Your task to perform on an android device: Clear the cart on ebay. Add "logitech g pro" to the cart on ebay, then select checkout. Image 0: 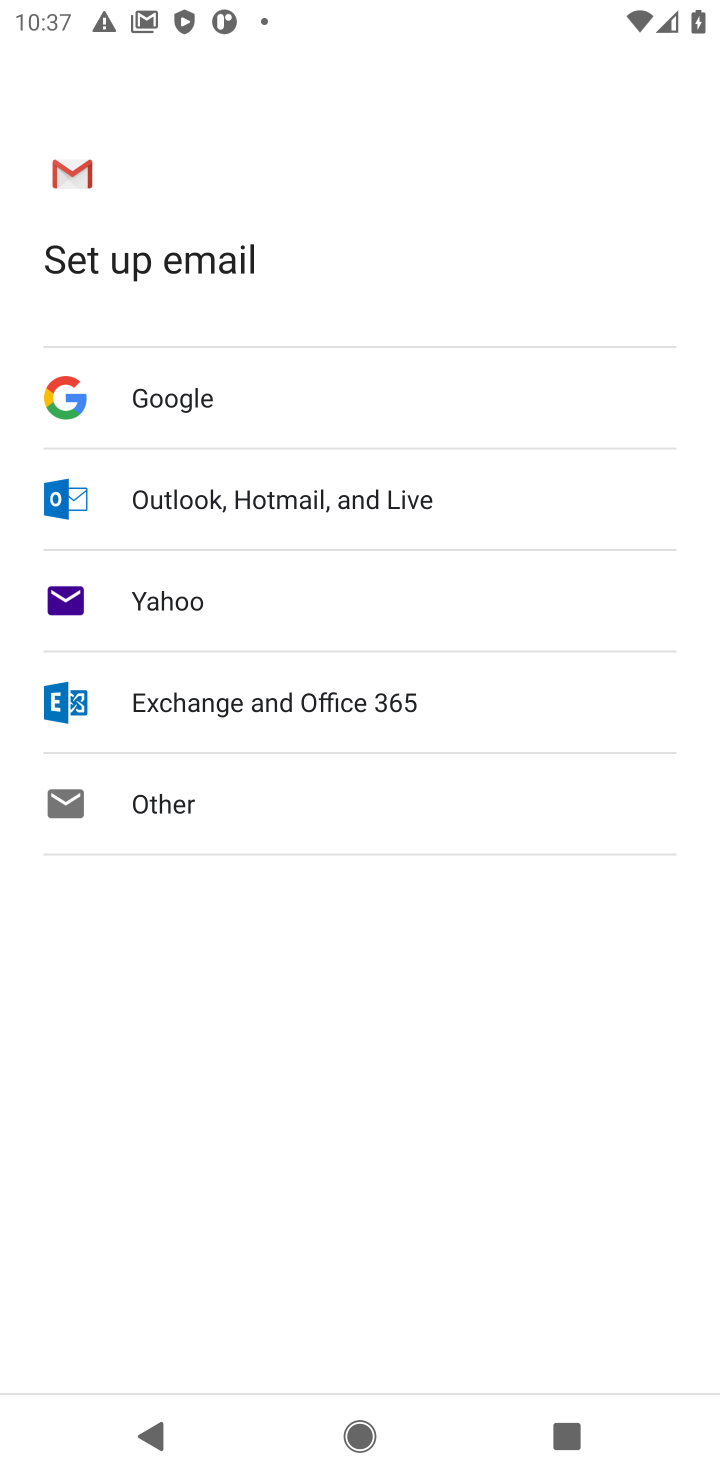
Step 0: press home button
Your task to perform on an android device: Clear the cart on ebay. Add "logitech g pro" to the cart on ebay, then select checkout. Image 1: 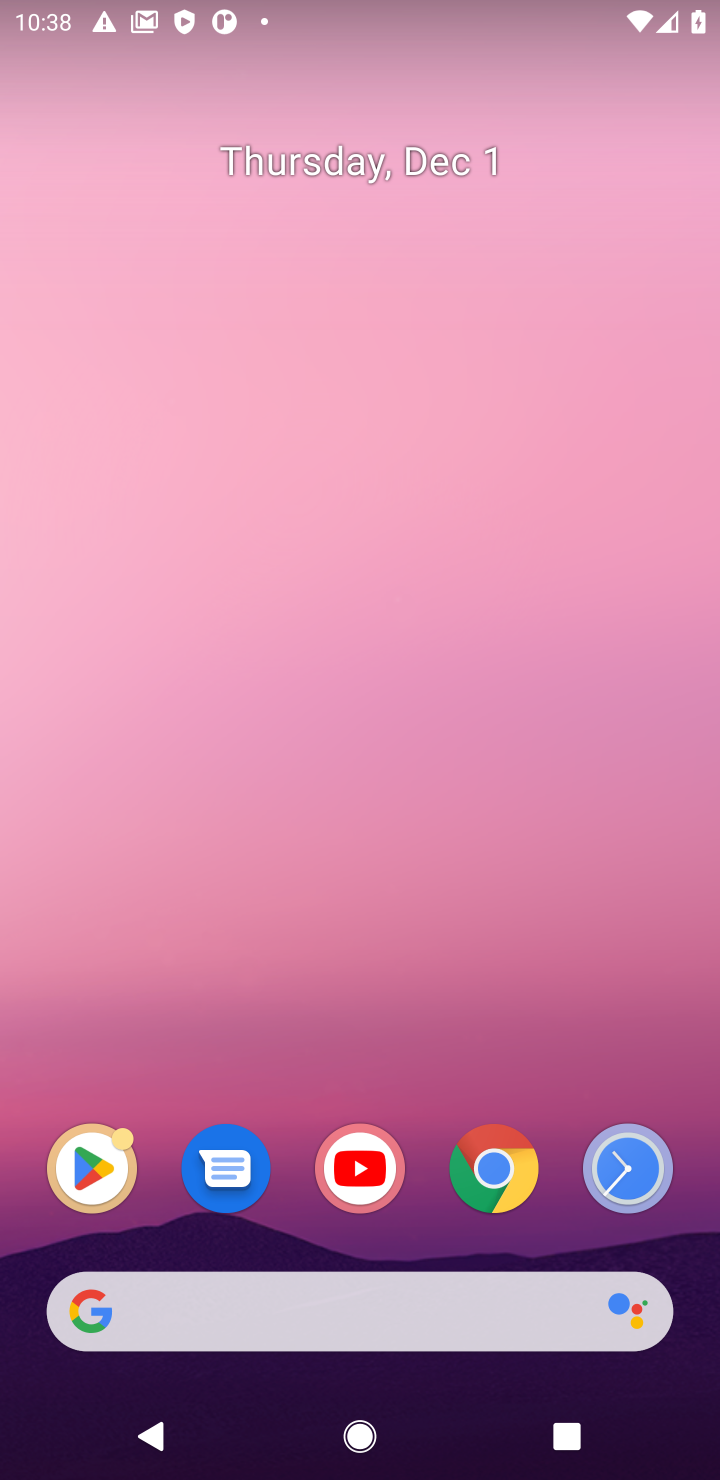
Step 1: click (485, 1179)
Your task to perform on an android device: Clear the cart on ebay. Add "logitech g pro" to the cart on ebay, then select checkout. Image 2: 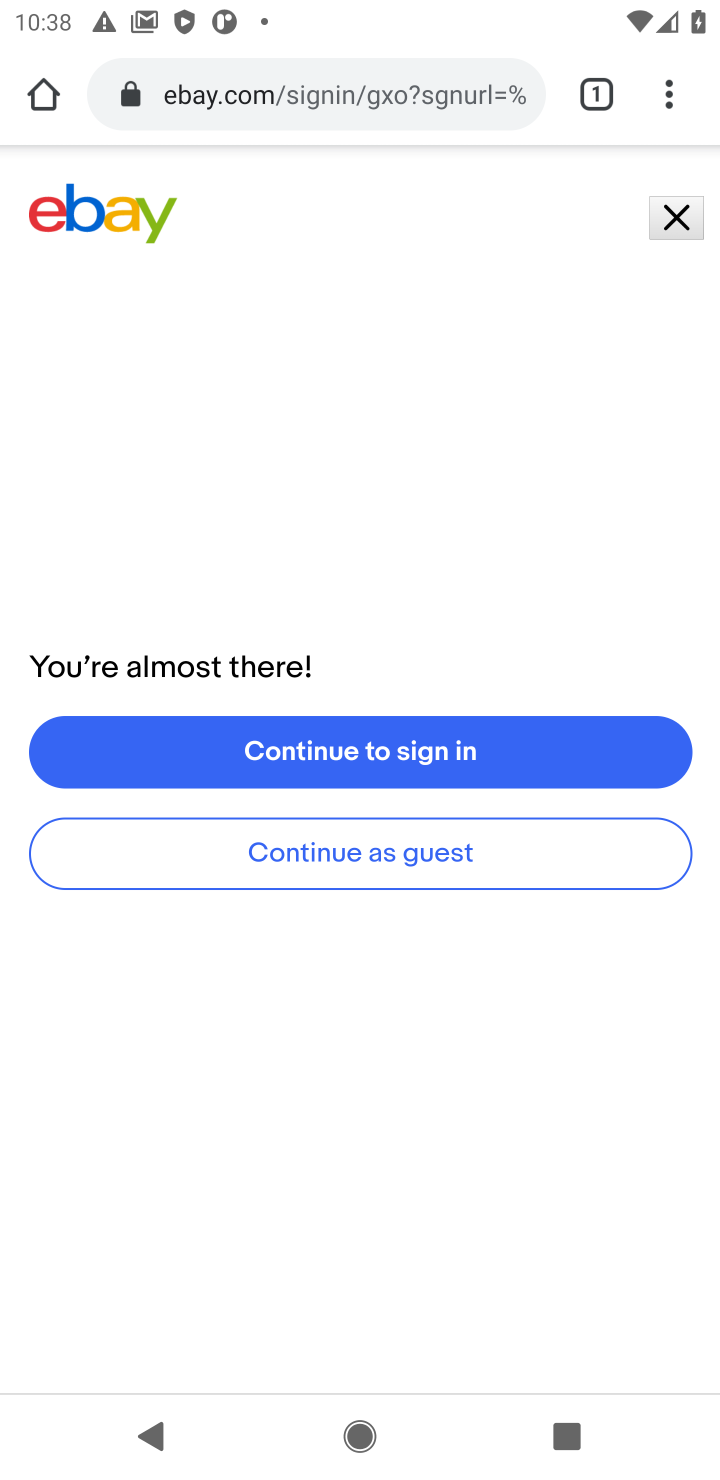
Step 2: click (330, 91)
Your task to perform on an android device: Clear the cart on ebay. Add "logitech g pro" to the cart on ebay, then select checkout. Image 3: 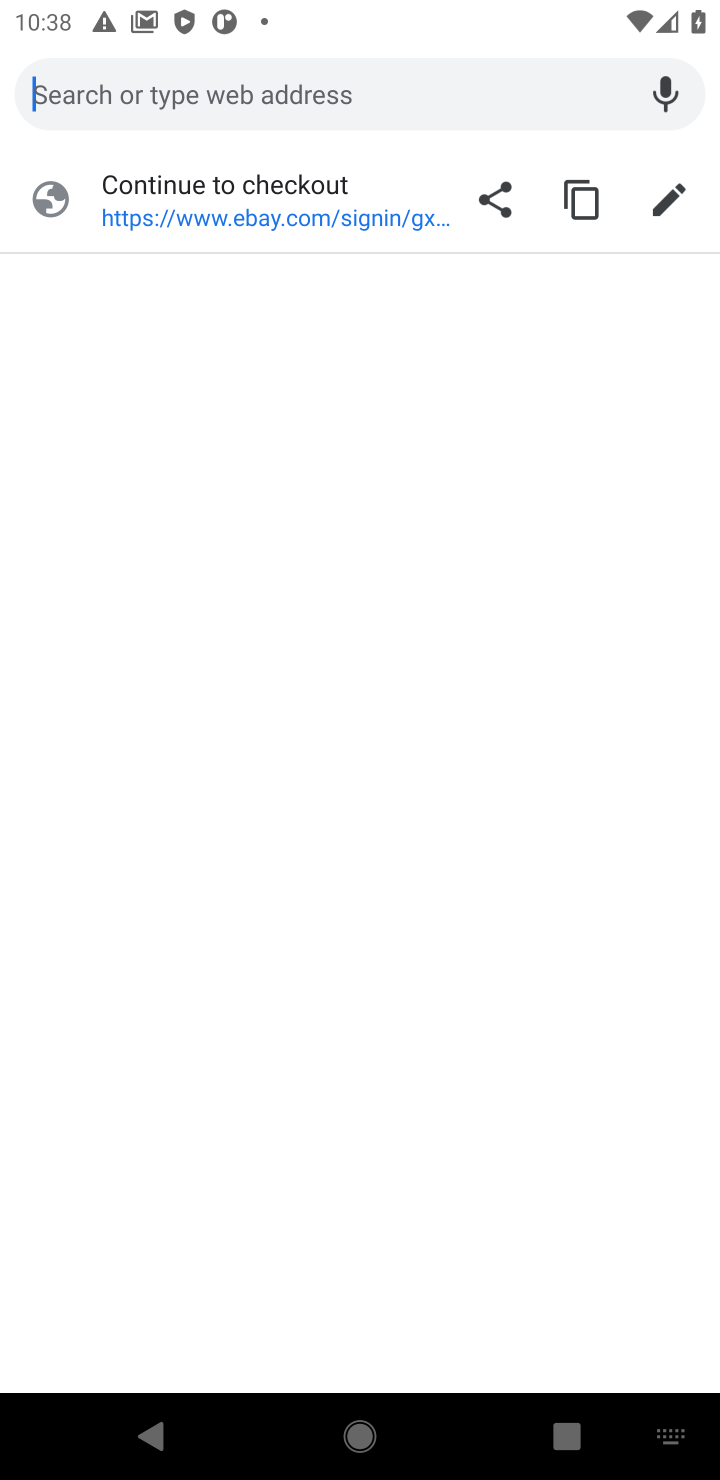
Step 3: type "ebay.com"
Your task to perform on an android device: Clear the cart on ebay. Add "logitech g pro" to the cart on ebay, then select checkout. Image 4: 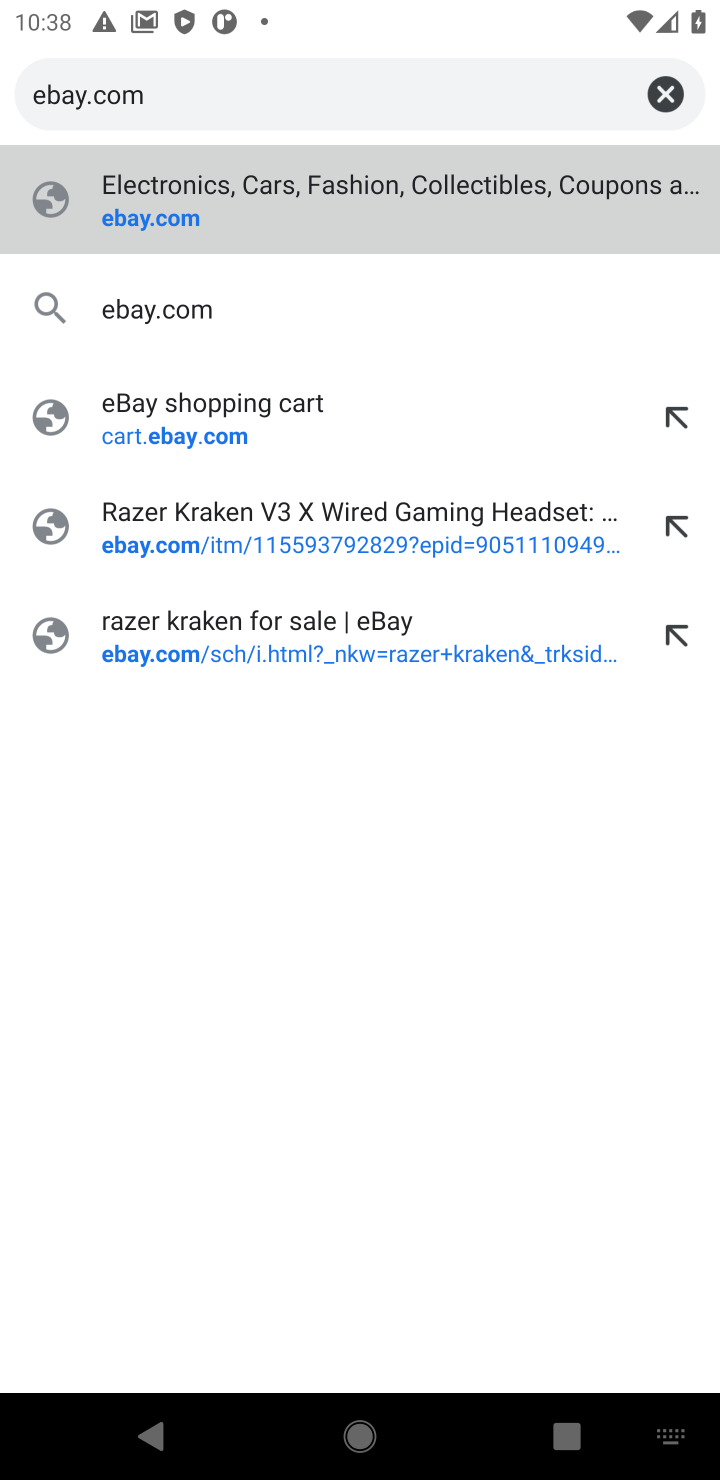
Step 4: click (139, 229)
Your task to perform on an android device: Clear the cart on ebay. Add "logitech g pro" to the cart on ebay, then select checkout. Image 5: 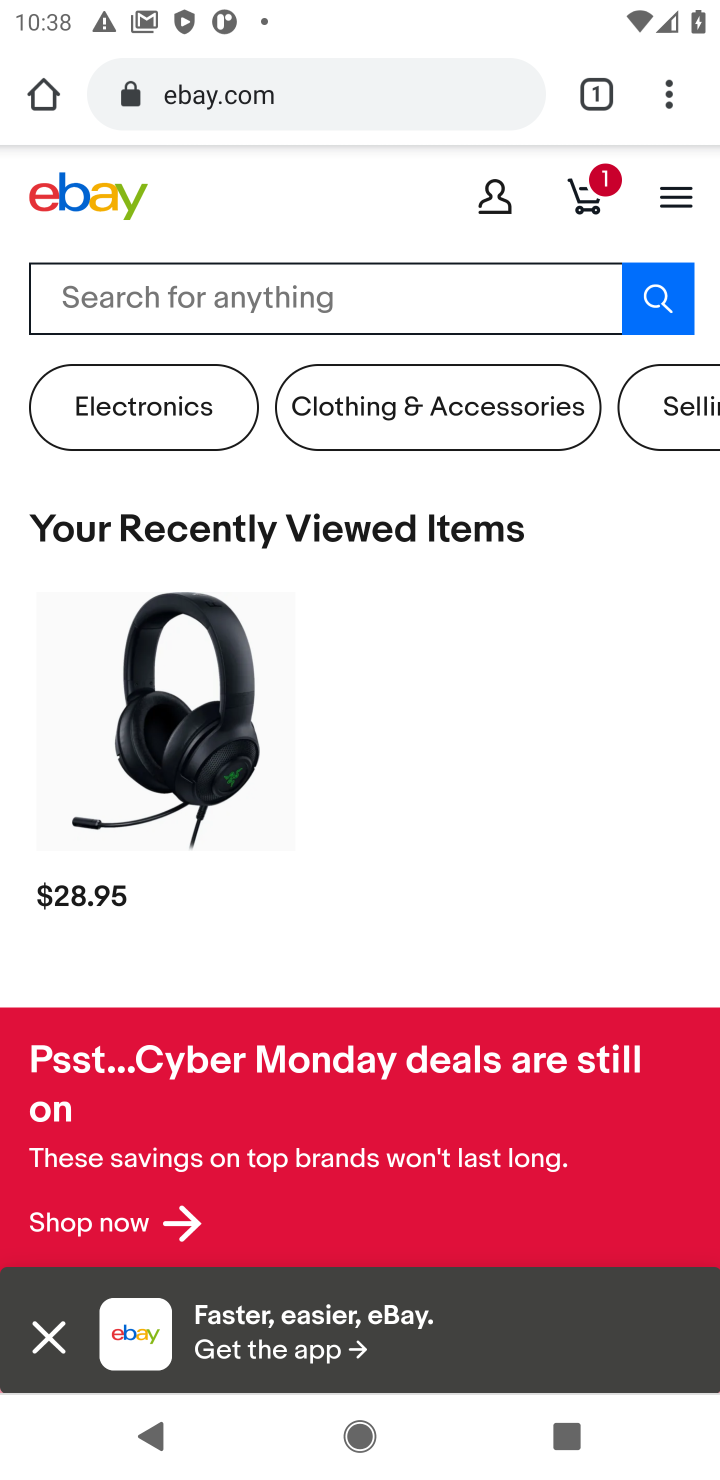
Step 5: click (595, 204)
Your task to perform on an android device: Clear the cart on ebay. Add "logitech g pro" to the cart on ebay, then select checkout. Image 6: 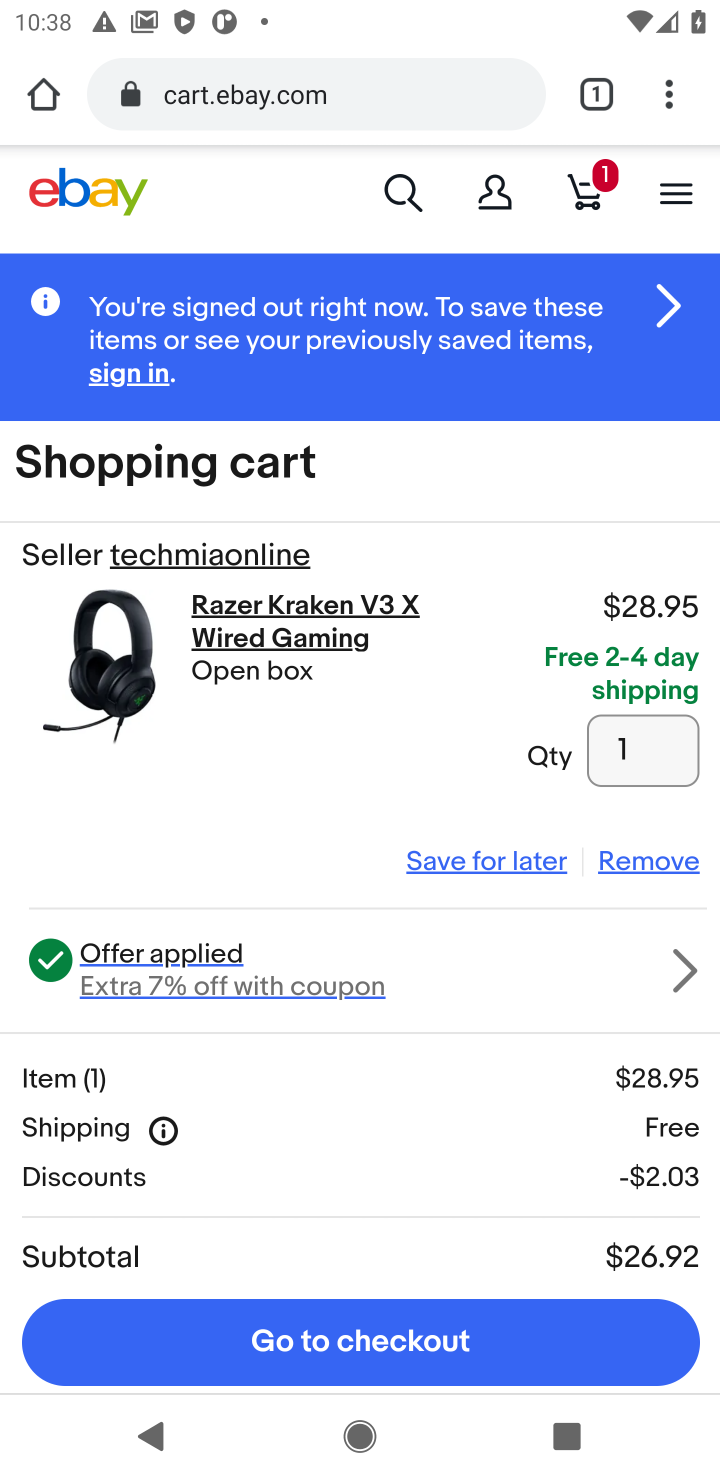
Step 6: click (658, 871)
Your task to perform on an android device: Clear the cart on ebay. Add "logitech g pro" to the cart on ebay, then select checkout. Image 7: 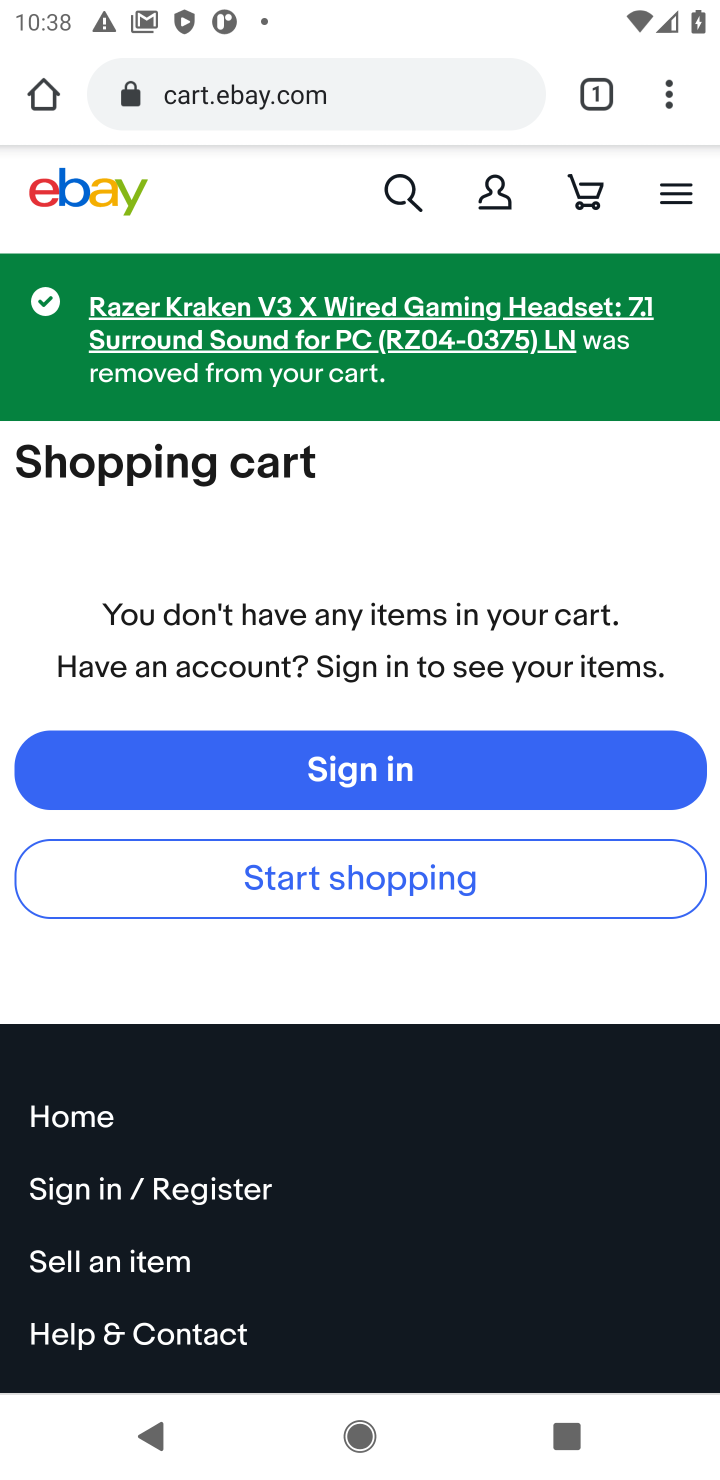
Step 7: click (384, 208)
Your task to perform on an android device: Clear the cart on ebay. Add "logitech g pro" to the cart on ebay, then select checkout. Image 8: 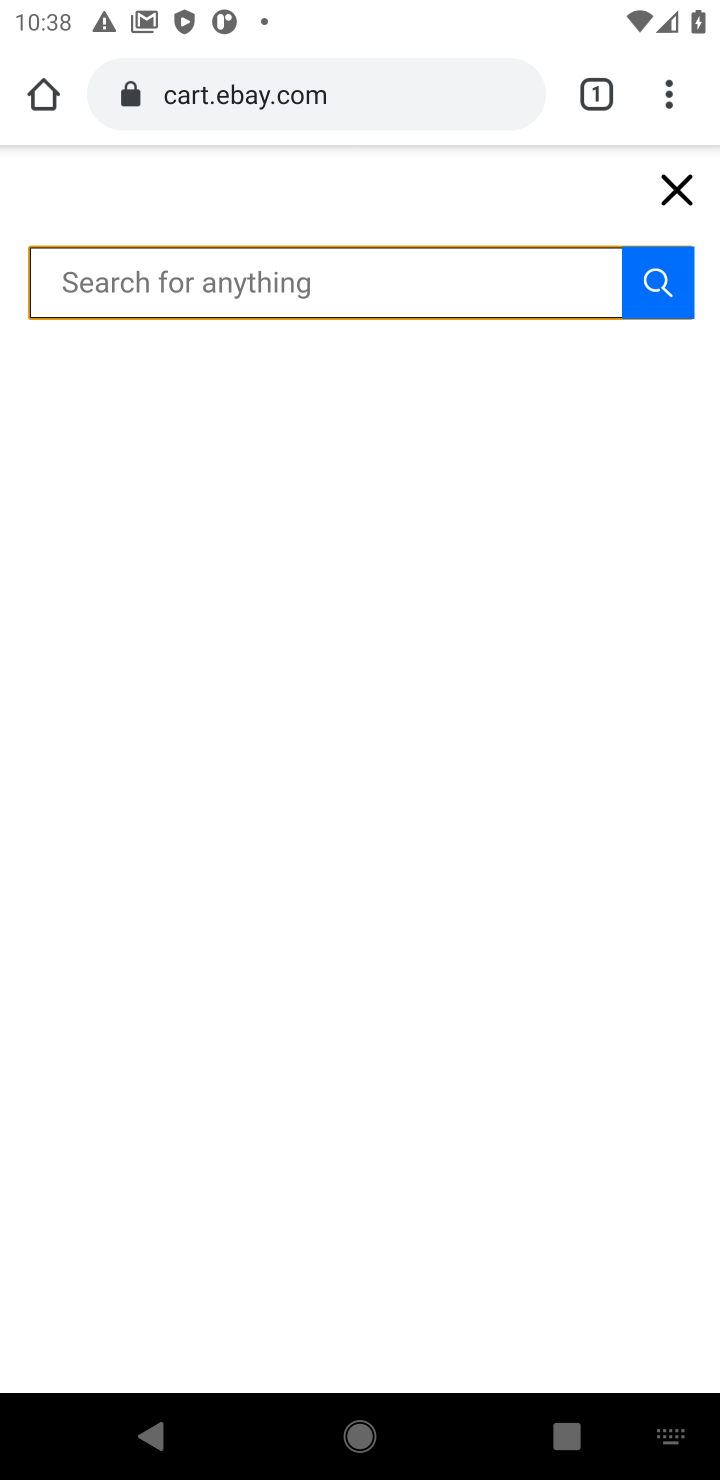
Step 8: type "logitech g pro"
Your task to perform on an android device: Clear the cart on ebay. Add "logitech g pro" to the cart on ebay, then select checkout. Image 9: 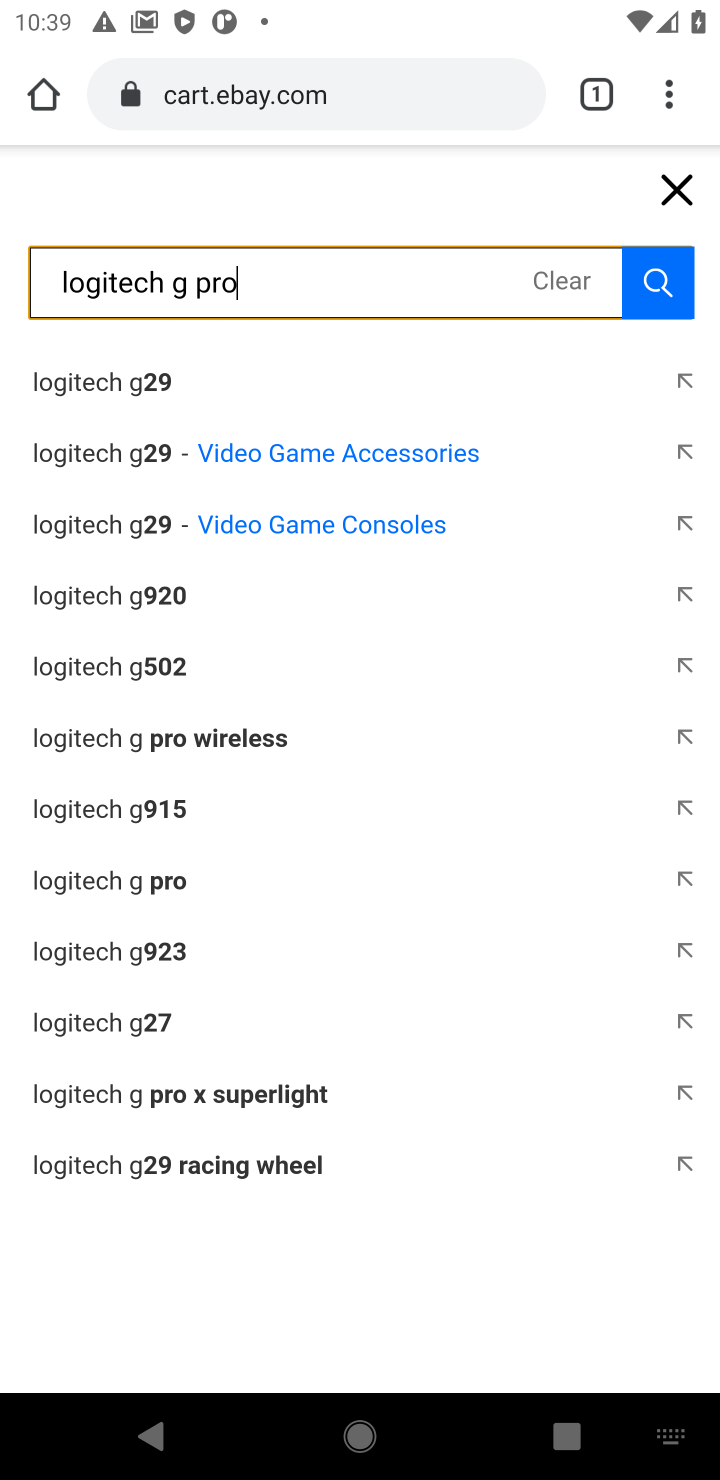
Step 9: click (157, 880)
Your task to perform on an android device: Clear the cart on ebay. Add "logitech g pro" to the cart on ebay, then select checkout. Image 10: 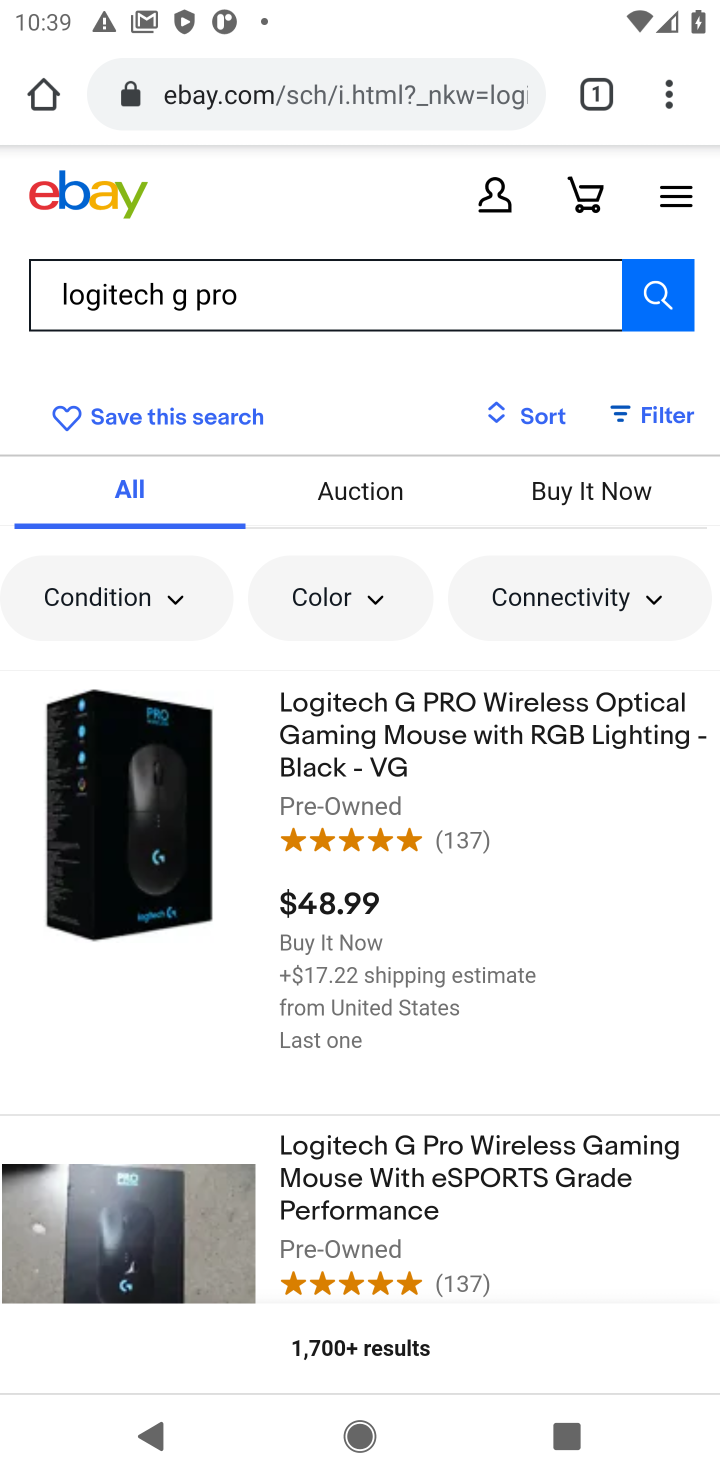
Step 10: click (393, 723)
Your task to perform on an android device: Clear the cart on ebay. Add "logitech g pro" to the cart on ebay, then select checkout. Image 11: 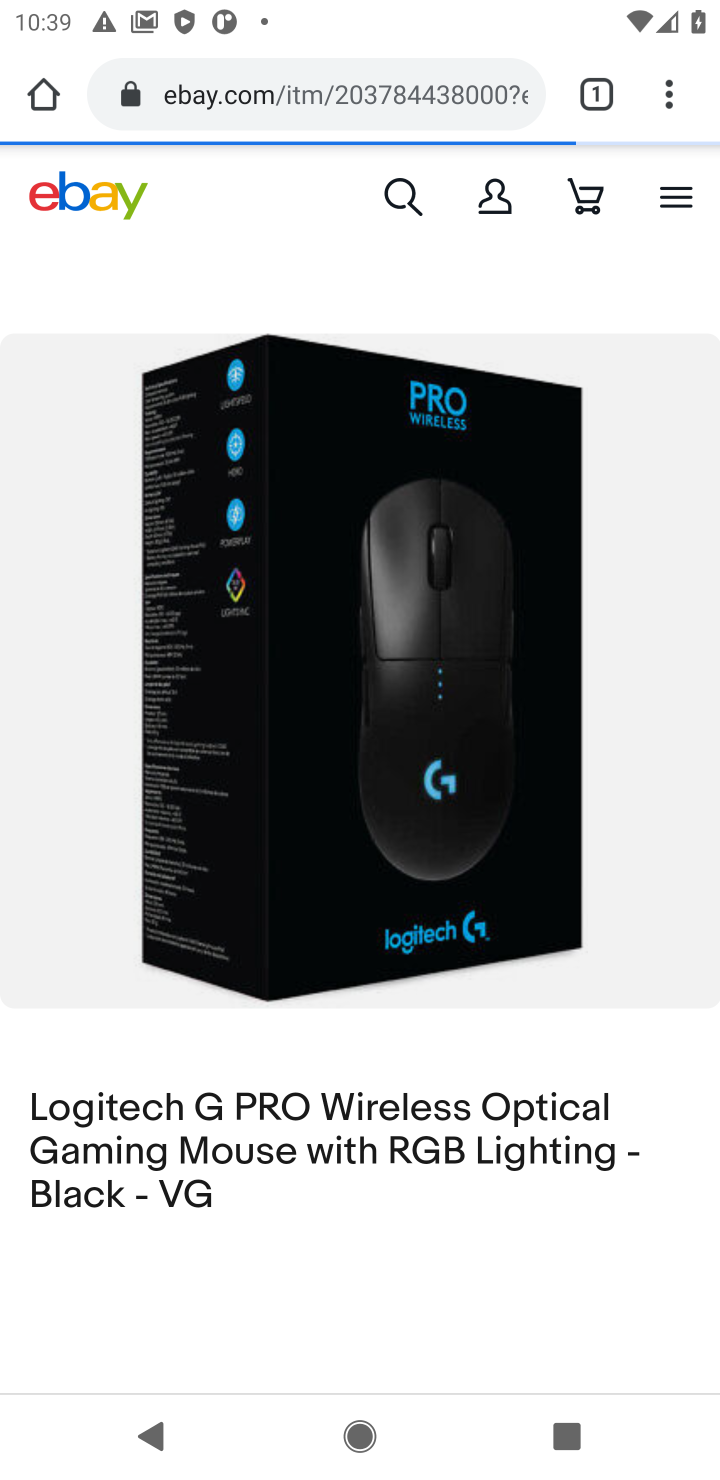
Step 11: drag from (337, 728) to (339, 216)
Your task to perform on an android device: Clear the cart on ebay. Add "logitech g pro" to the cart on ebay, then select checkout. Image 12: 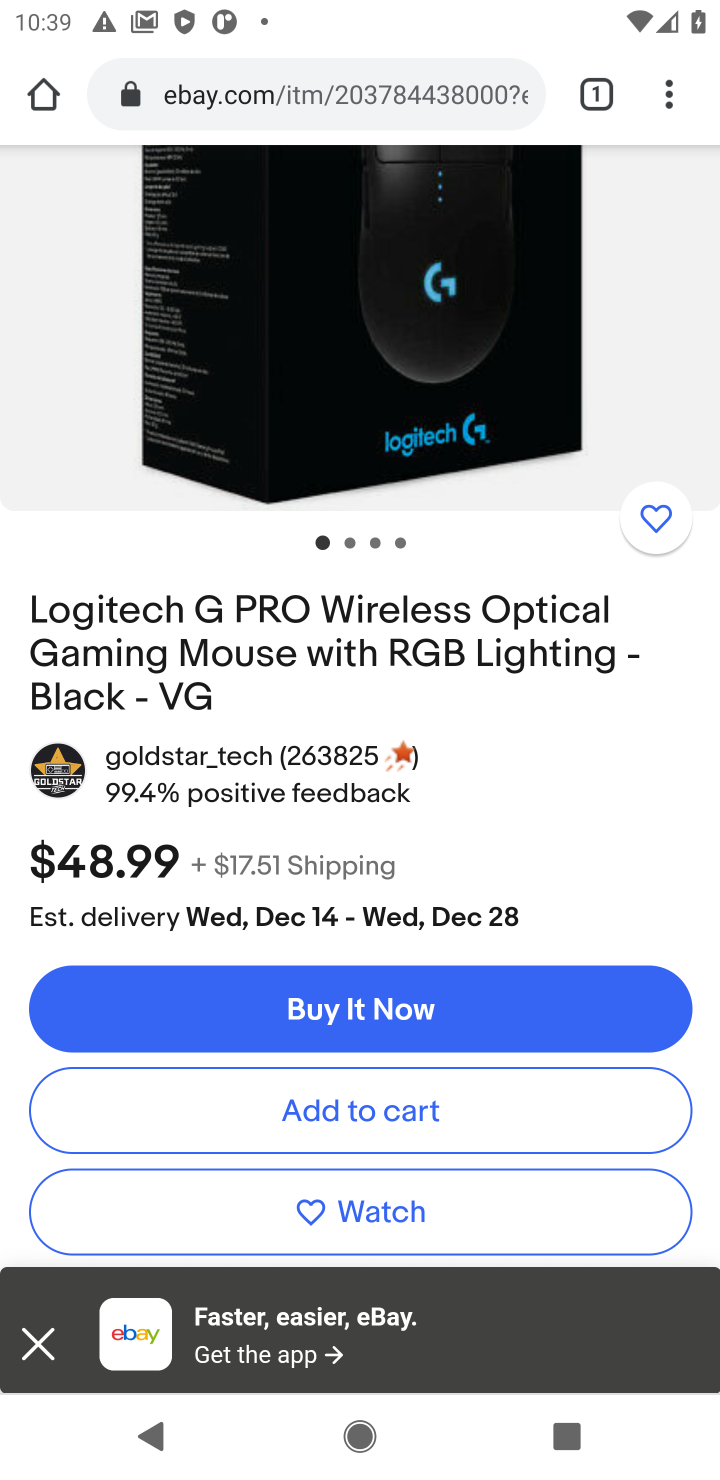
Step 12: click (285, 1119)
Your task to perform on an android device: Clear the cart on ebay. Add "logitech g pro" to the cart on ebay, then select checkout. Image 13: 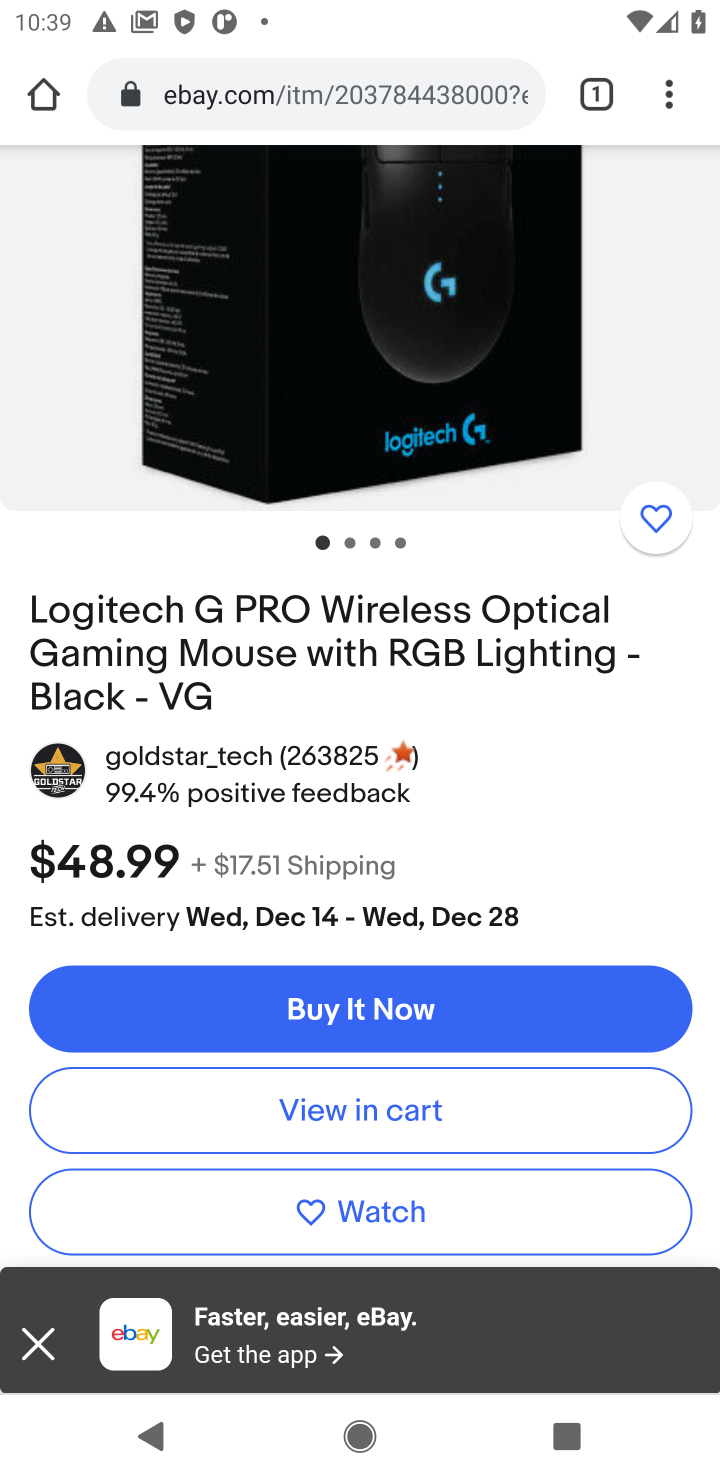
Step 13: click (285, 1121)
Your task to perform on an android device: Clear the cart on ebay. Add "logitech g pro" to the cart on ebay, then select checkout. Image 14: 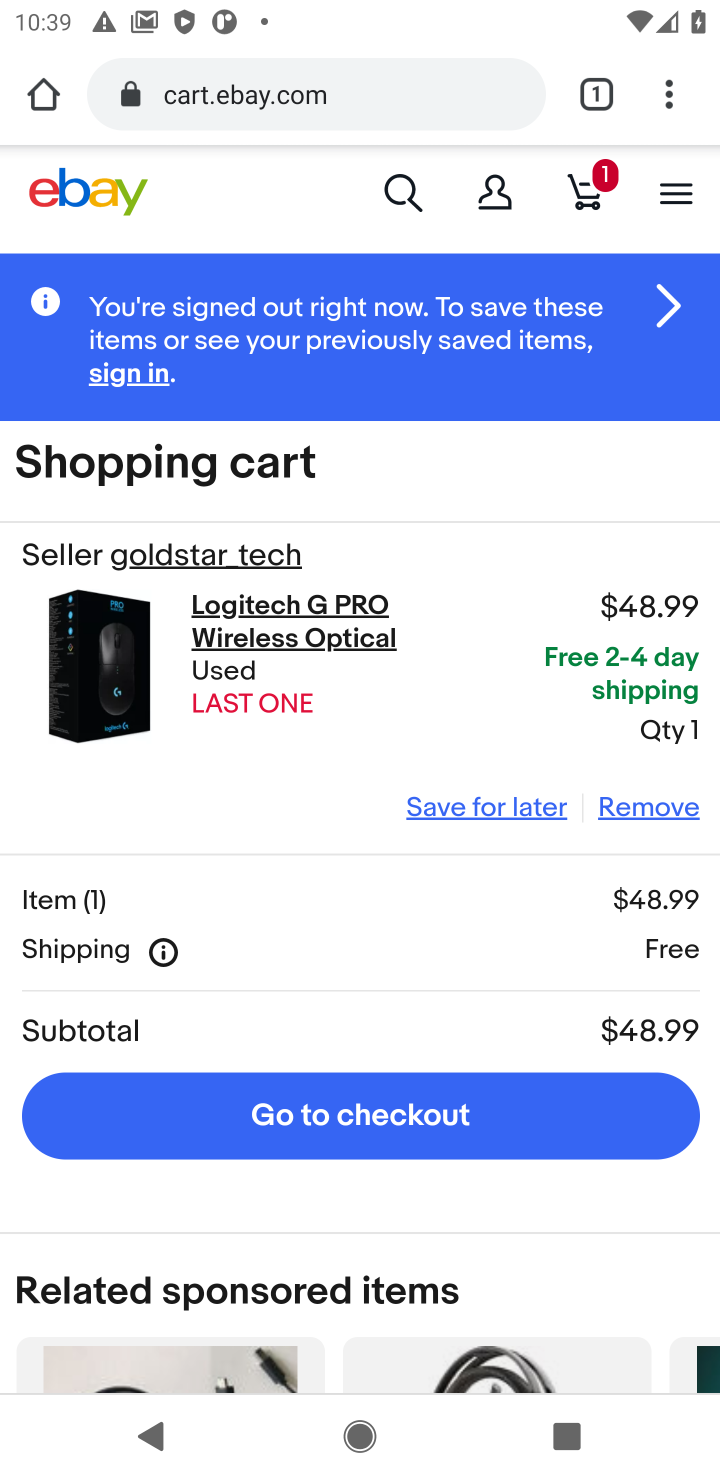
Step 14: click (285, 1121)
Your task to perform on an android device: Clear the cart on ebay. Add "logitech g pro" to the cart on ebay, then select checkout. Image 15: 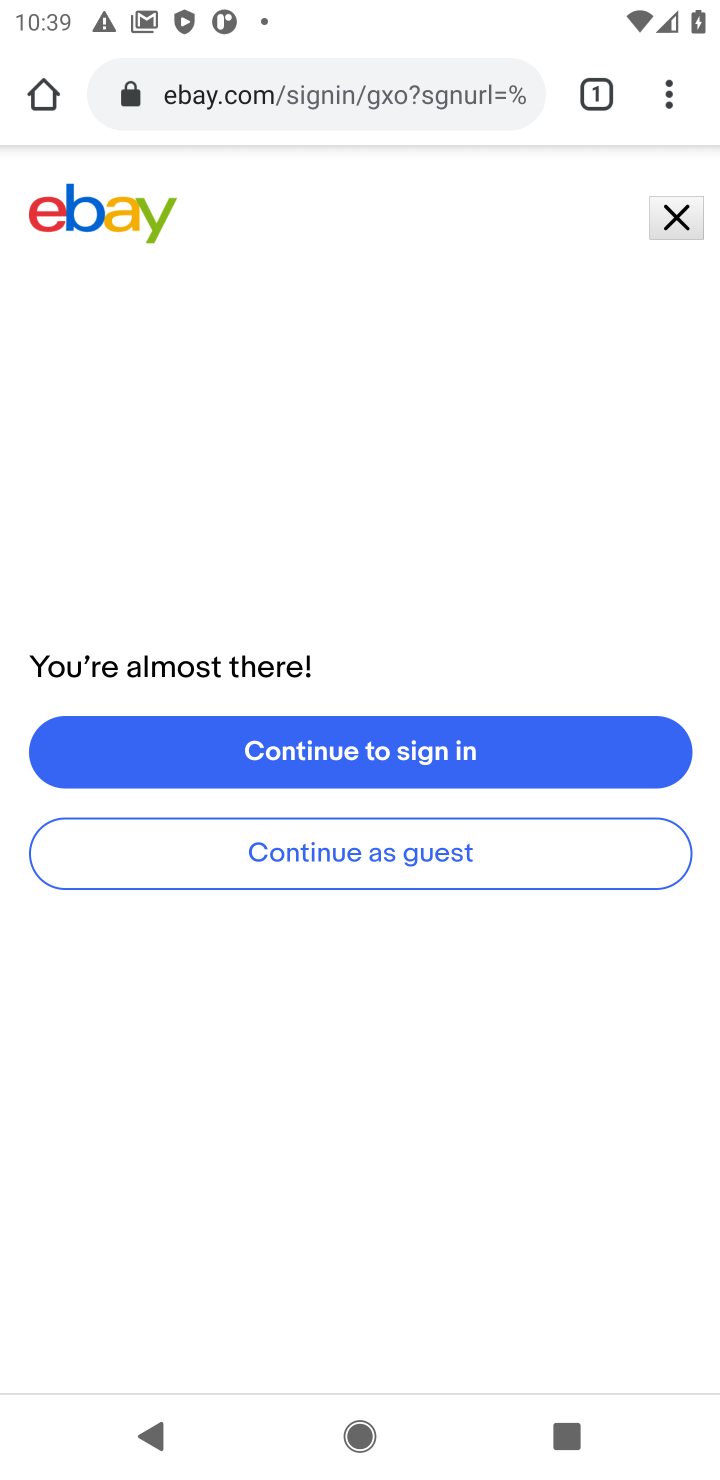
Step 15: task complete